Your task to perform on an android device: set the stopwatch Image 0: 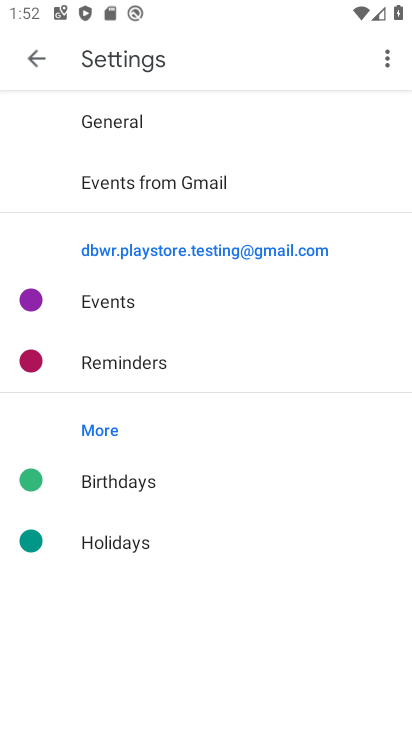
Step 0: press home button
Your task to perform on an android device: set the stopwatch Image 1: 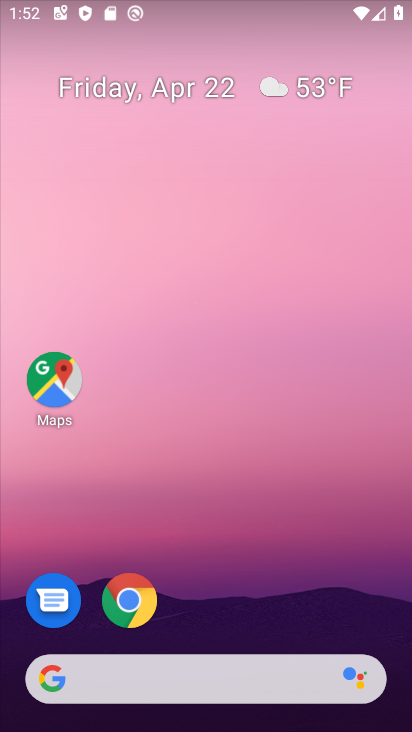
Step 1: drag from (213, 726) to (209, 167)
Your task to perform on an android device: set the stopwatch Image 2: 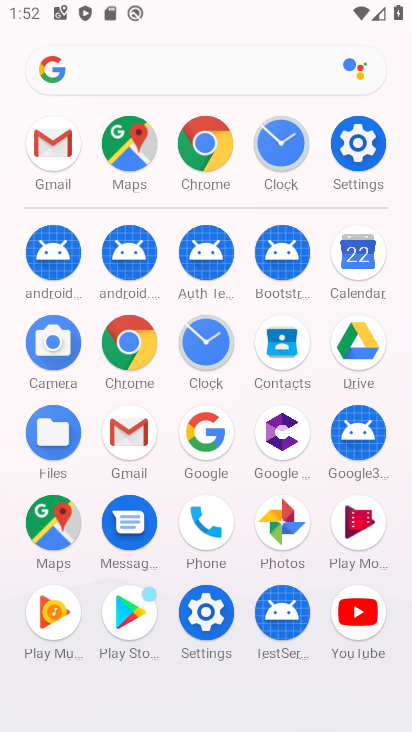
Step 2: click (277, 153)
Your task to perform on an android device: set the stopwatch Image 3: 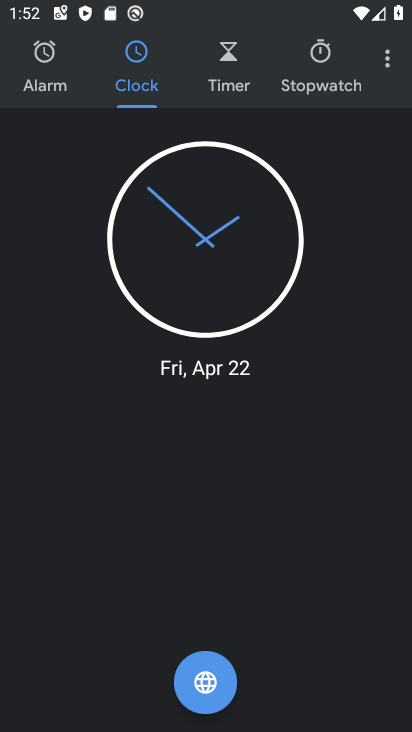
Step 3: click (315, 53)
Your task to perform on an android device: set the stopwatch Image 4: 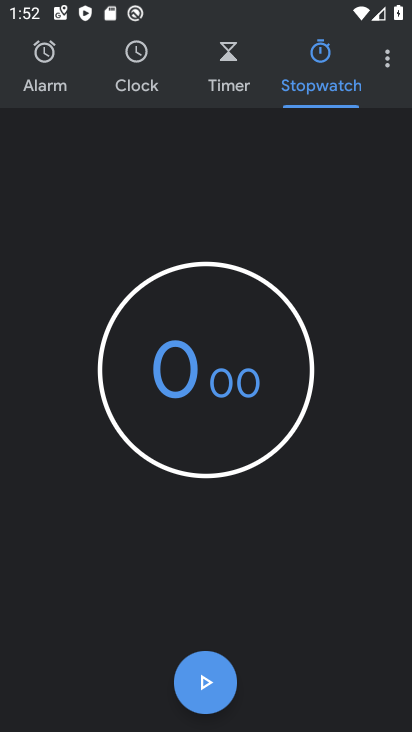
Step 4: type "666"
Your task to perform on an android device: set the stopwatch Image 5: 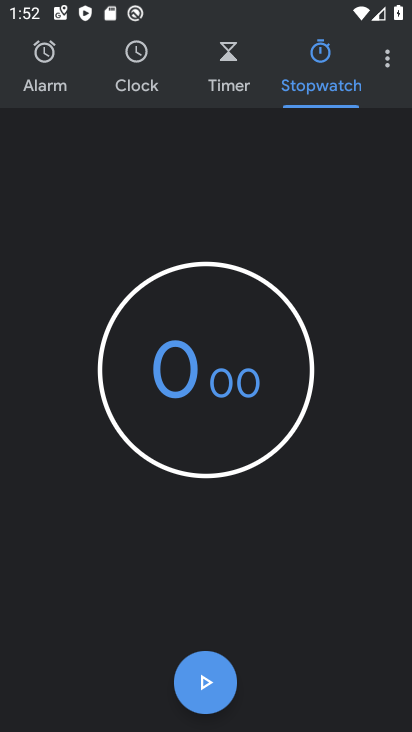
Step 5: click (192, 387)
Your task to perform on an android device: set the stopwatch Image 6: 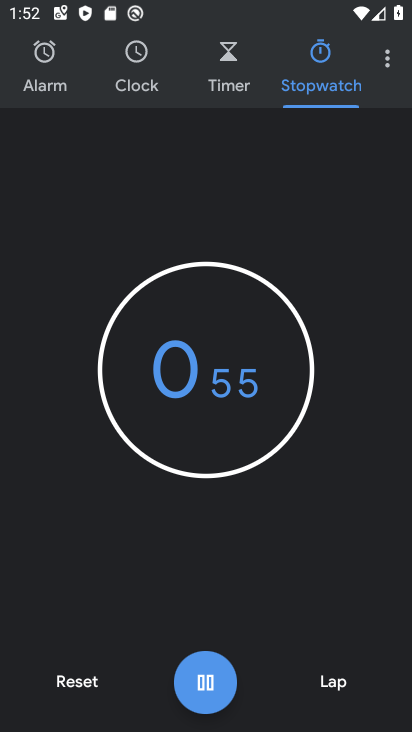
Step 6: type ""
Your task to perform on an android device: set the stopwatch Image 7: 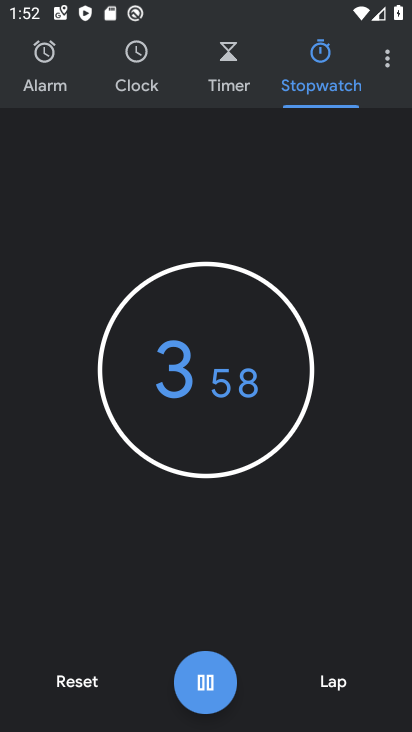
Step 7: type "77"
Your task to perform on an android device: set the stopwatch Image 8: 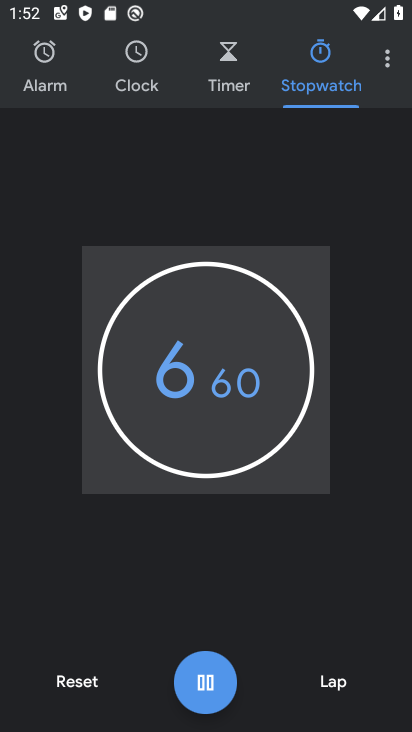
Step 8: task complete